Your task to perform on an android device: toggle notifications settings in the gmail app Image 0: 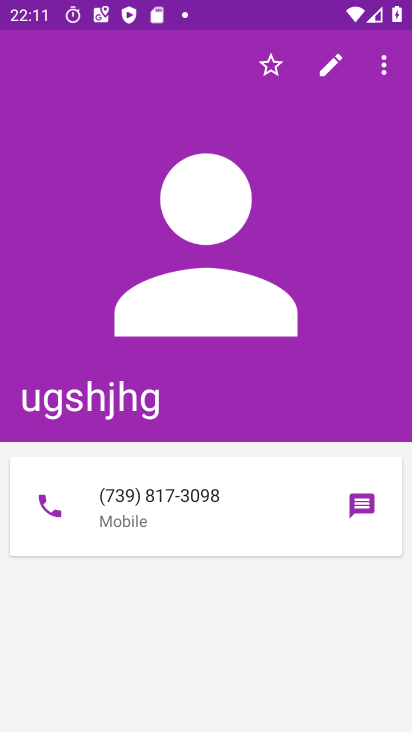
Step 0: press home button
Your task to perform on an android device: toggle notifications settings in the gmail app Image 1: 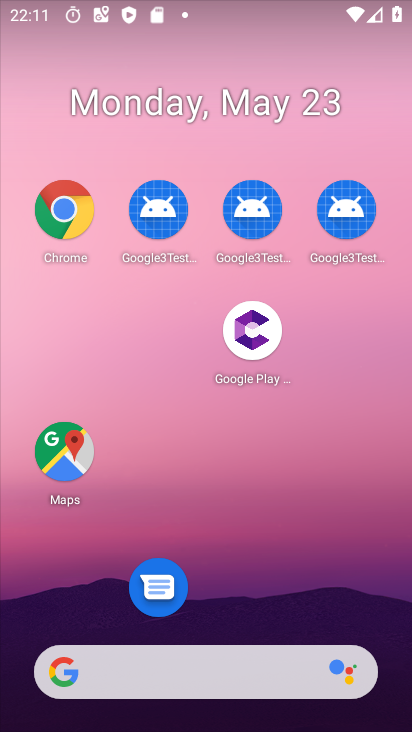
Step 1: drag from (286, 600) to (330, 142)
Your task to perform on an android device: toggle notifications settings in the gmail app Image 2: 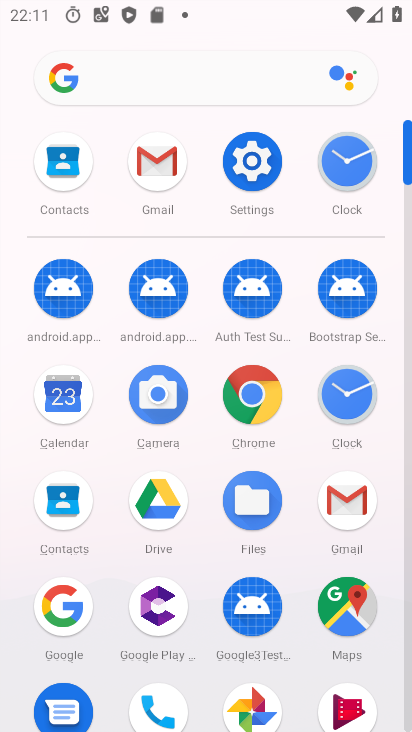
Step 2: click (166, 164)
Your task to perform on an android device: toggle notifications settings in the gmail app Image 3: 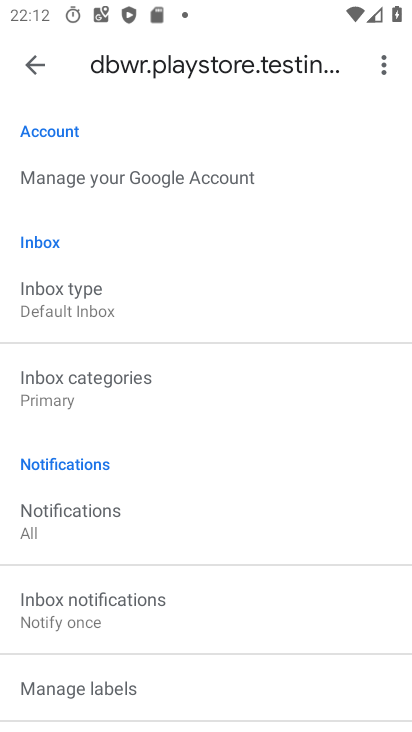
Step 3: drag from (200, 663) to (156, 391)
Your task to perform on an android device: toggle notifications settings in the gmail app Image 4: 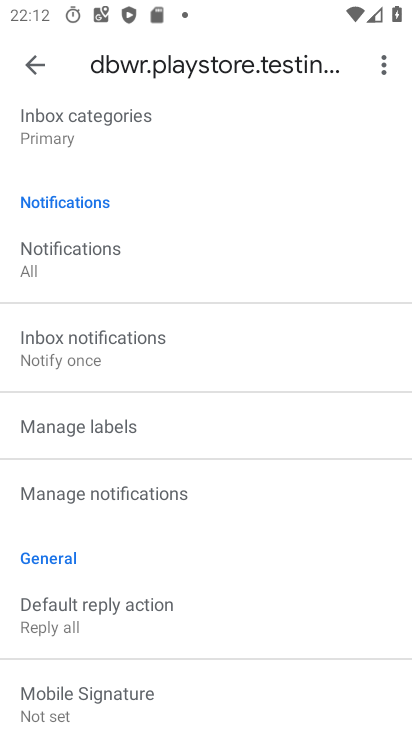
Step 4: click (163, 501)
Your task to perform on an android device: toggle notifications settings in the gmail app Image 5: 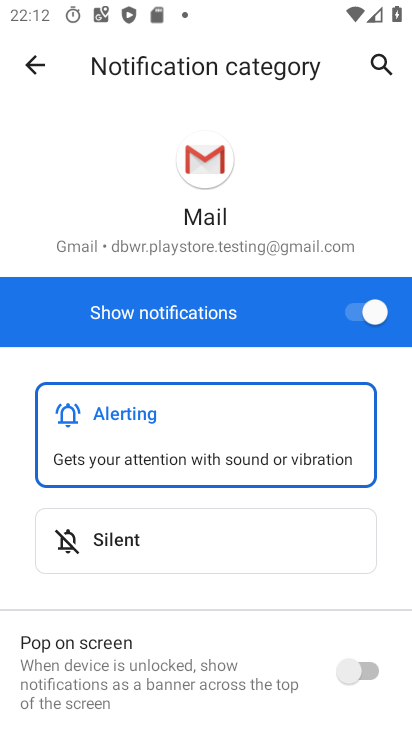
Step 5: click (356, 322)
Your task to perform on an android device: toggle notifications settings in the gmail app Image 6: 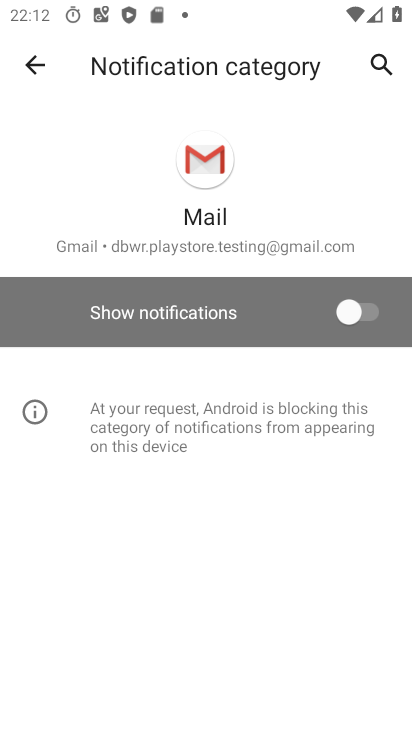
Step 6: task complete